Your task to perform on an android device: Search for the Best selling coffee table on Ikea Image 0: 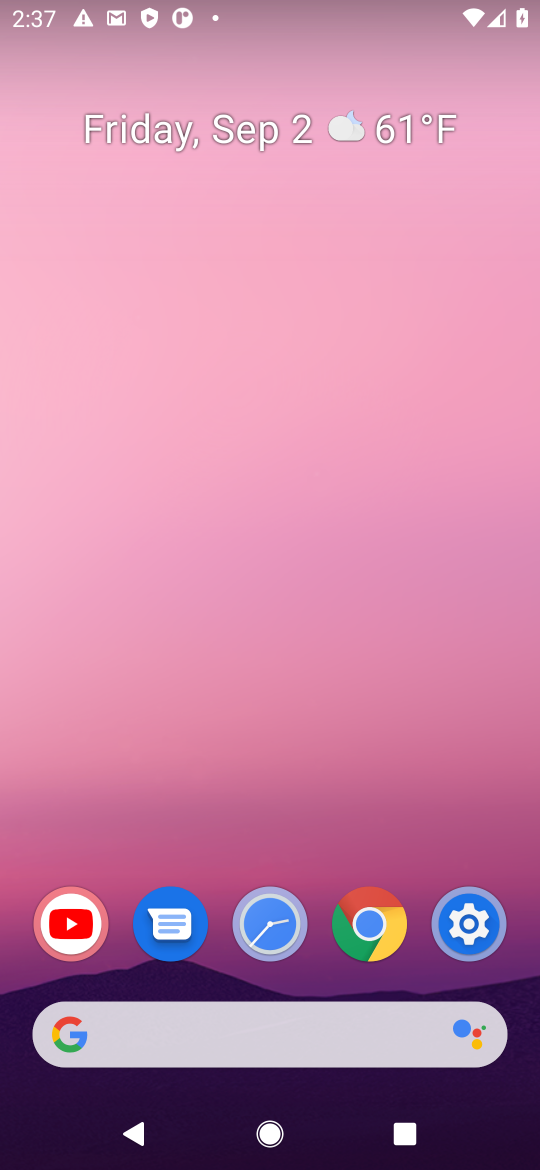
Step 0: click (381, 1033)
Your task to perform on an android device: Search for the Best selling coffee table on Ikea Image 1: 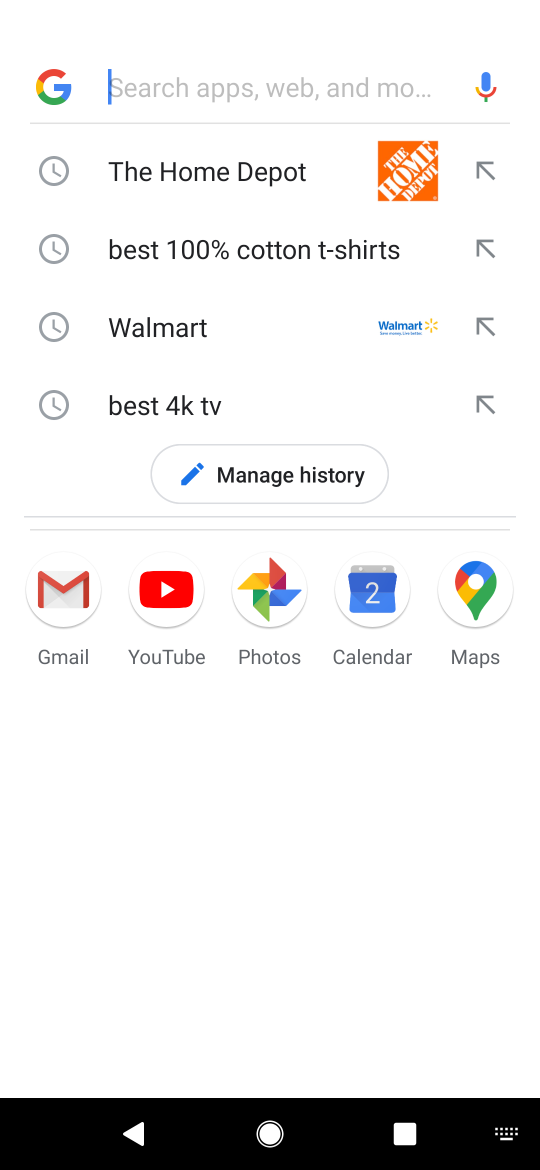
Step 1: press enter
Your task to perform on an android device: Search for the Best selling coffee table on Ikea Image 2: 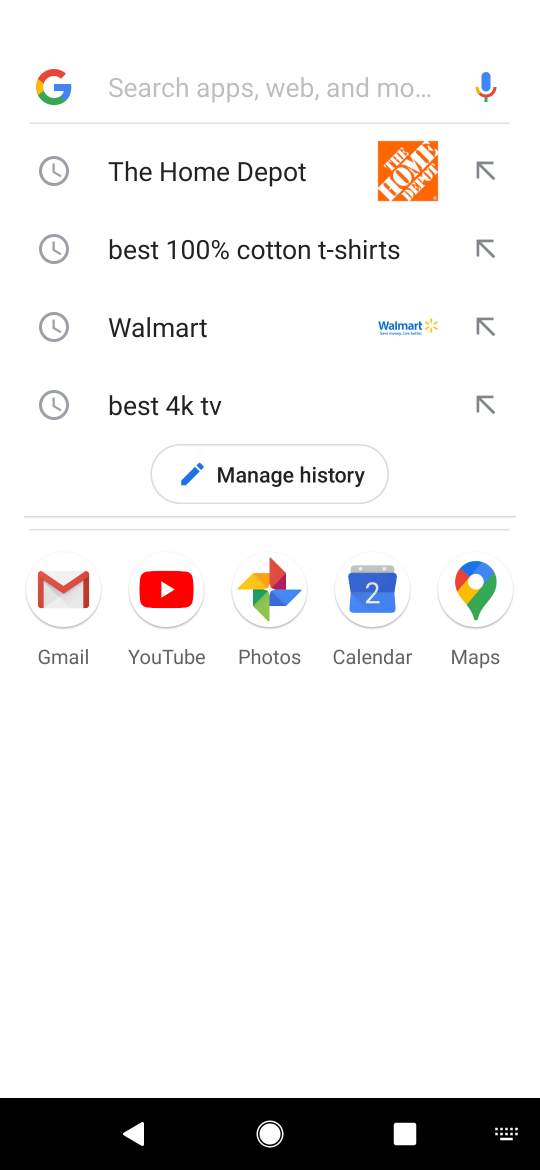
Step 2: type "ikea"
Your task to perform on an android device: Search for the Best selling coffee table on Ikea Image 3: 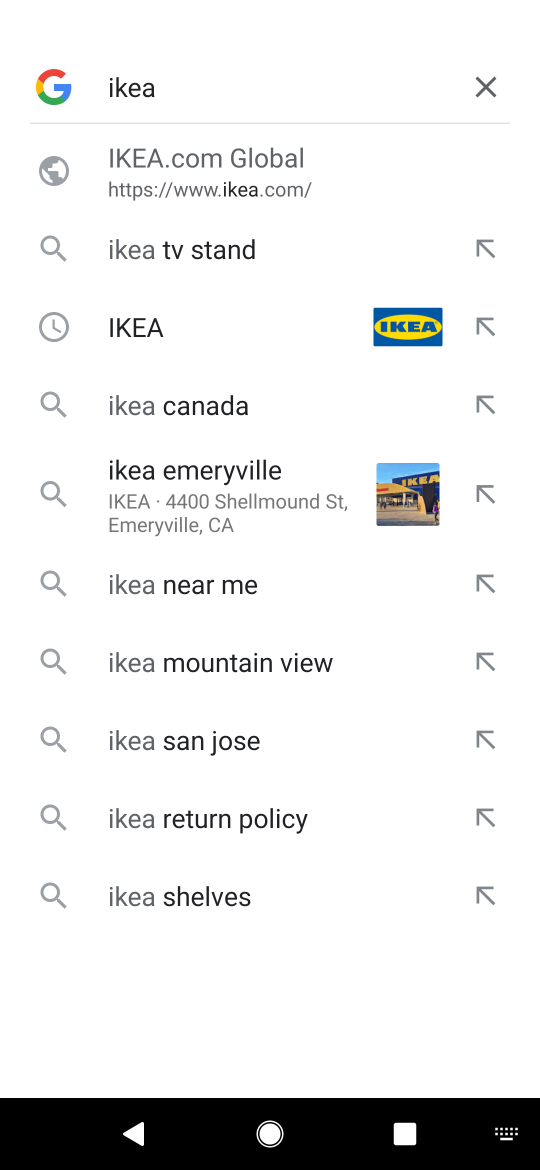
Step 3: click (250, 331)
Your task to perform on an android device: Search for the Best selling coffee table on Ikea Image 4: 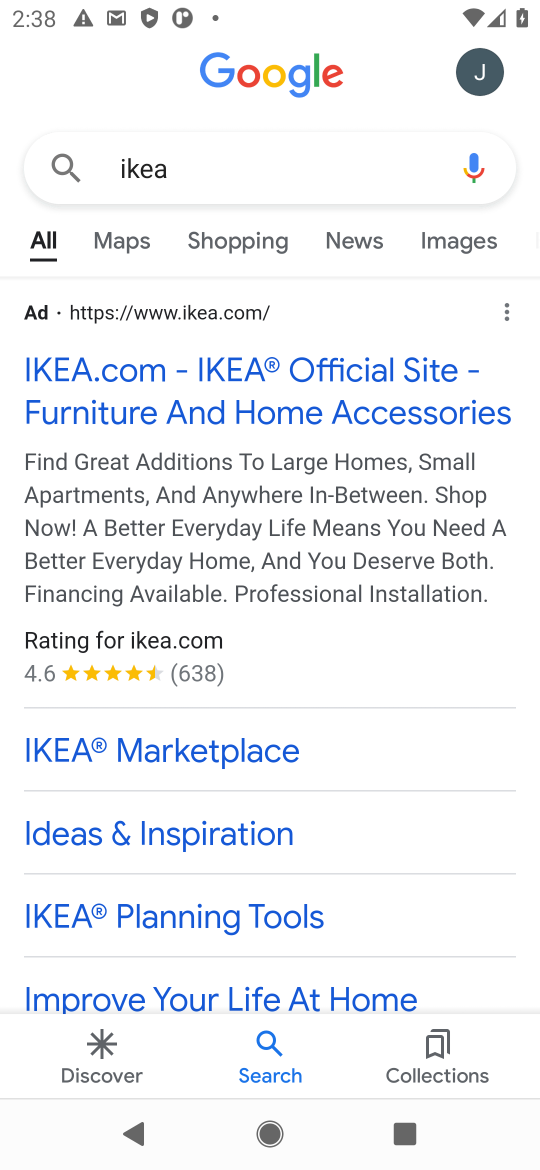
Step 4: click (267, 399)
Your task to perform on an android device: Search for the Best selling coffee table on Ikea Image 5: 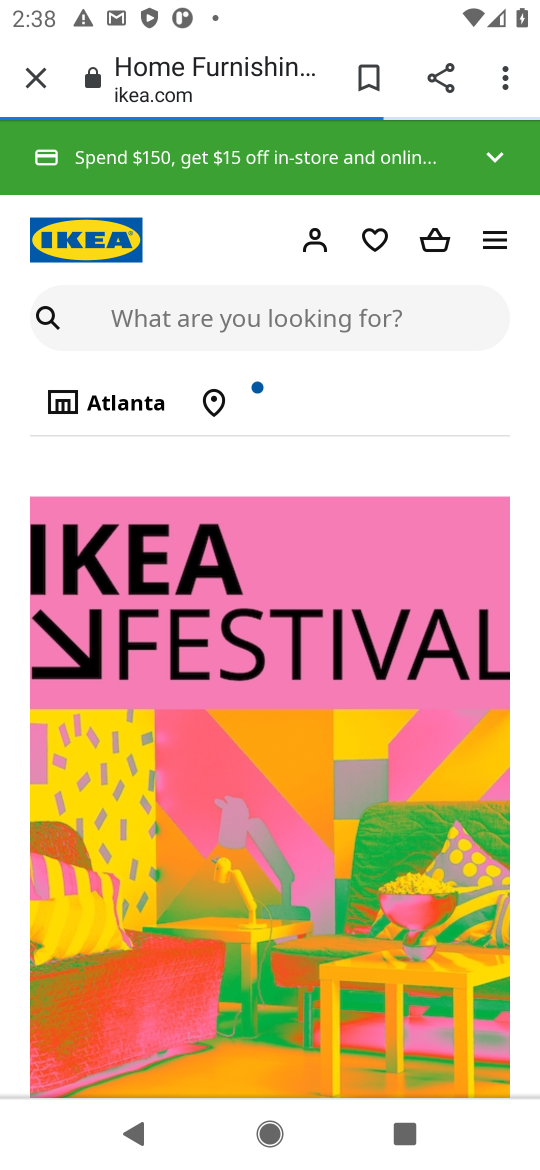
Step 5: click (264, 308)
Your task to perform on an android device: Search for the Best selling coffee table on Ikea Image 6: 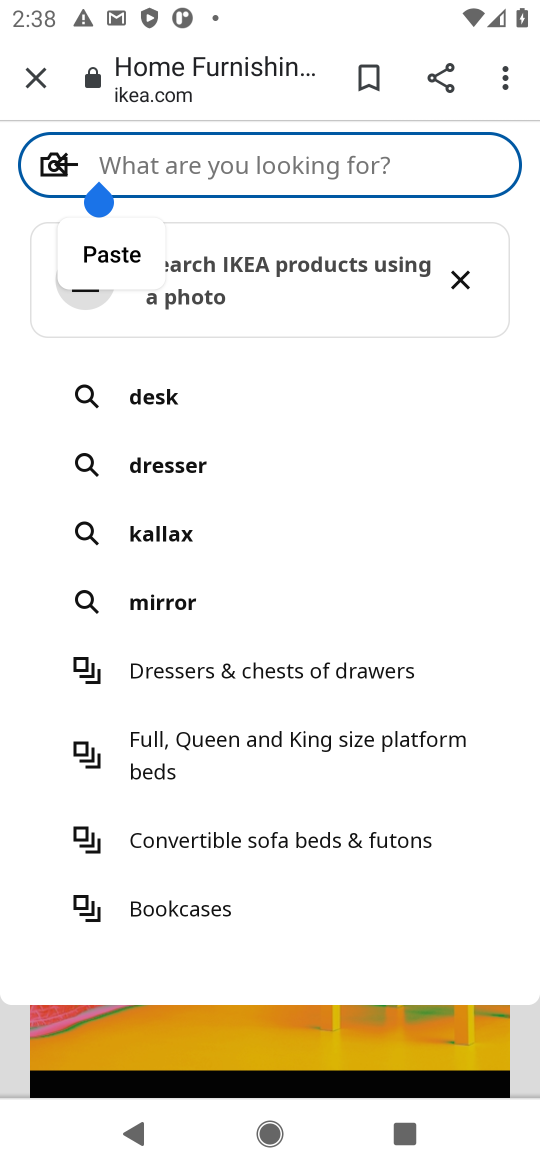
Step 6: type "best selling coffee table"
Your task to perform on an android device: Search for the Best selling coffee table on Ikea Image 7: 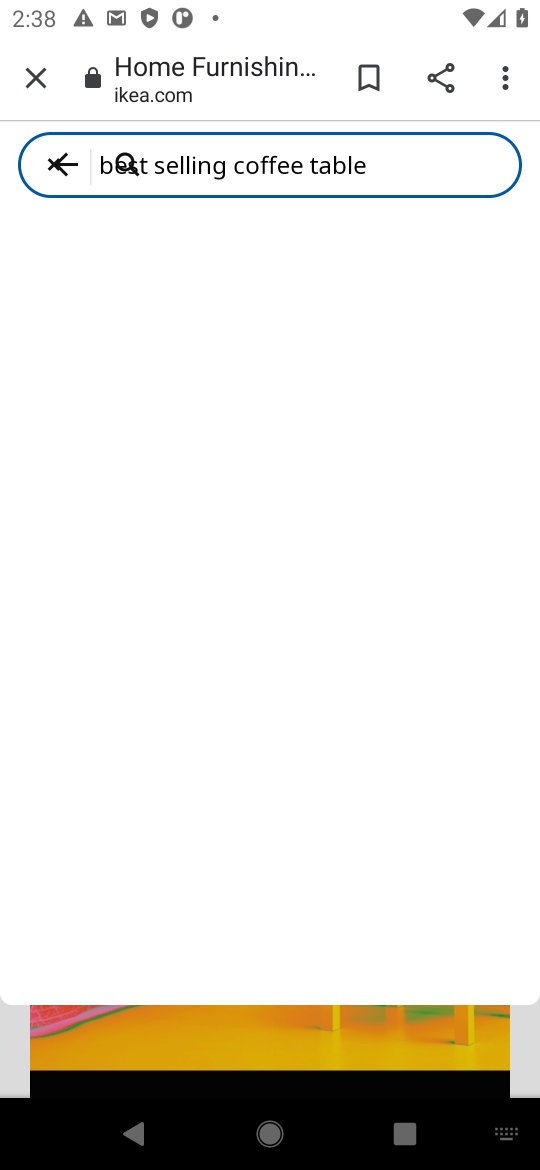
Step 7: click (46, 158)
Your task to perform on an android device: Search for the Best selling coffee table on Ikea Image 8: 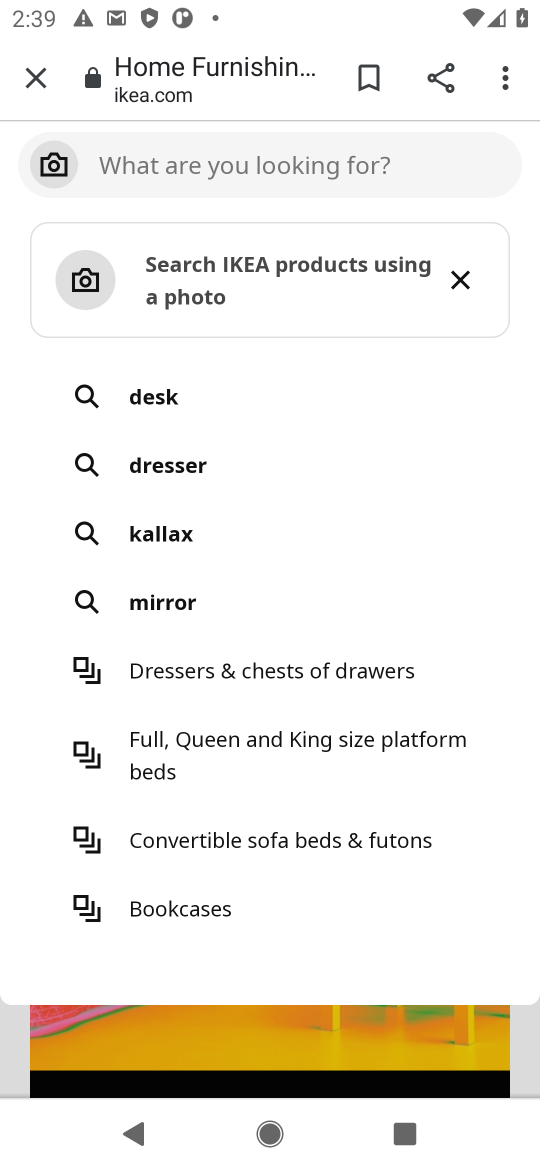
Step 8: task complete